Your task to perform on an android device: turn off improve location accuracy Image 0: 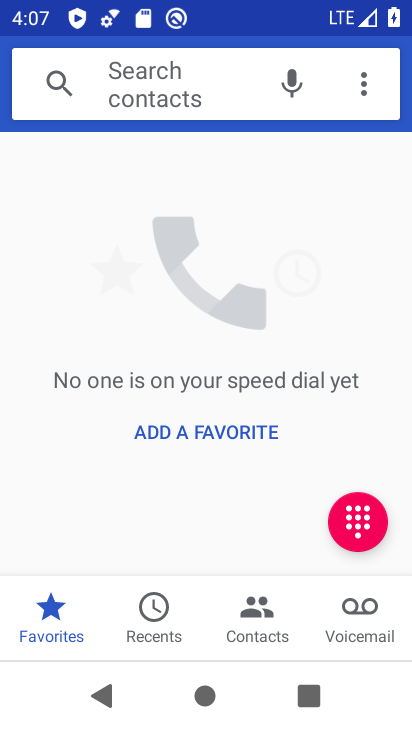
Step 0: press home button
Your task to perform on an android device: turn off improve location accuracy Image 1: 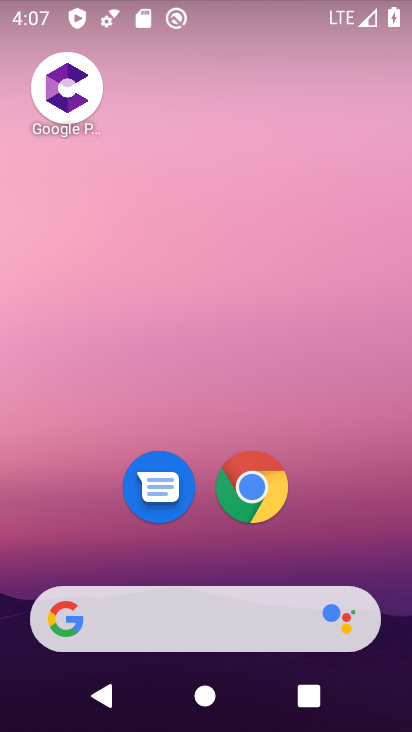
Step 1: drag from (396, 635) to (291, 173)
Your task to perform on an android device: turn off improve location accuracy Image 2: 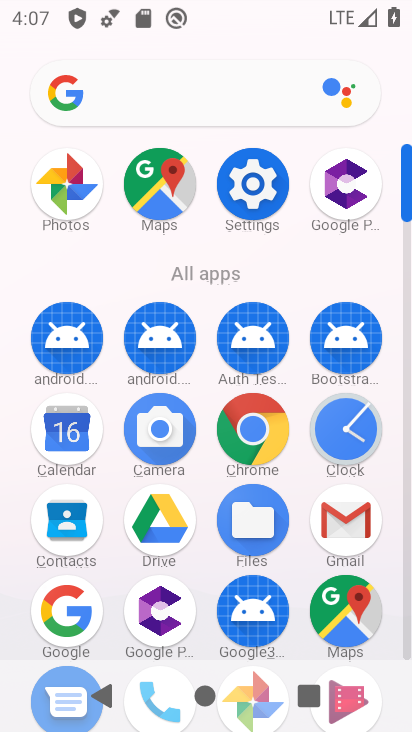
Step 2: click (408, 645)
Your task to perform on an android device: turn off improve location accuracy Image 3: 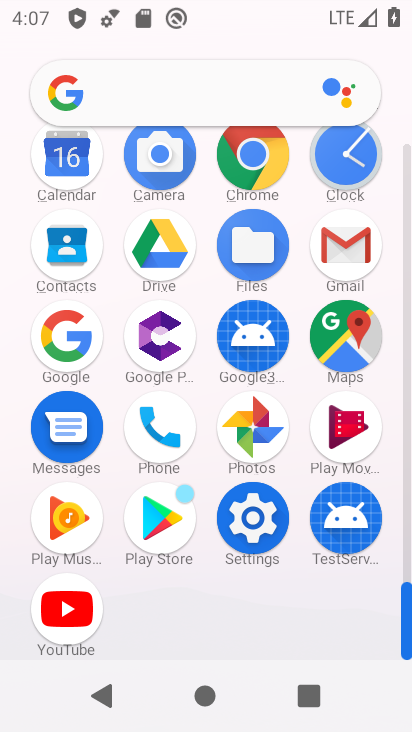
Step 3: click (253, 518)
Your task to perform on an android device: turn off improve location accuracy Image 4: 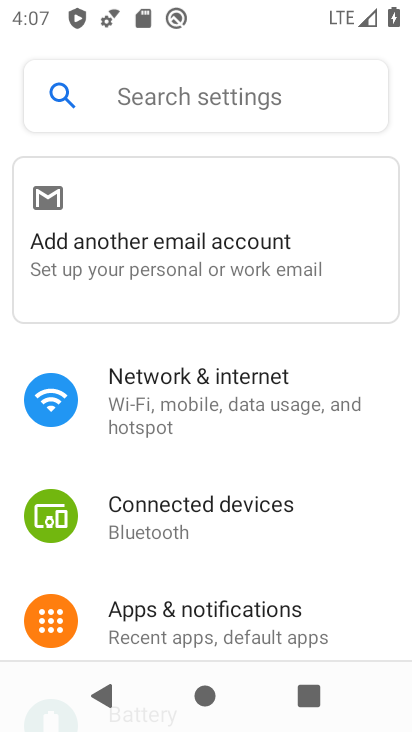
Step 4: click (303, 135)
Your task to perform on an android device: turn off improve location accuracy Image 5: 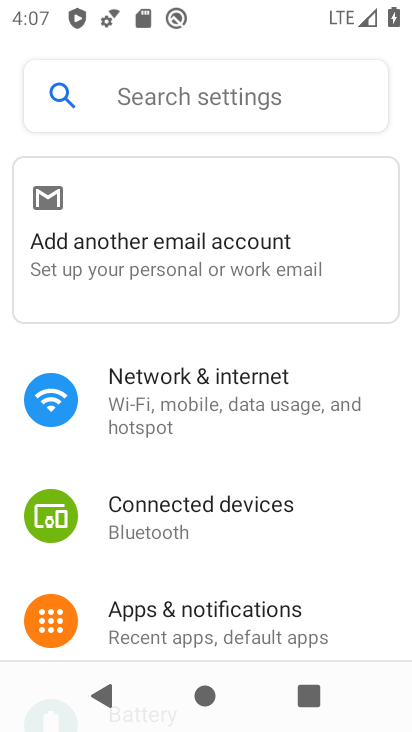
Step 5: drag from (332, 634) to (320, 190)
Your task to perform on an android device: turn off improve location accuracy Image 6: 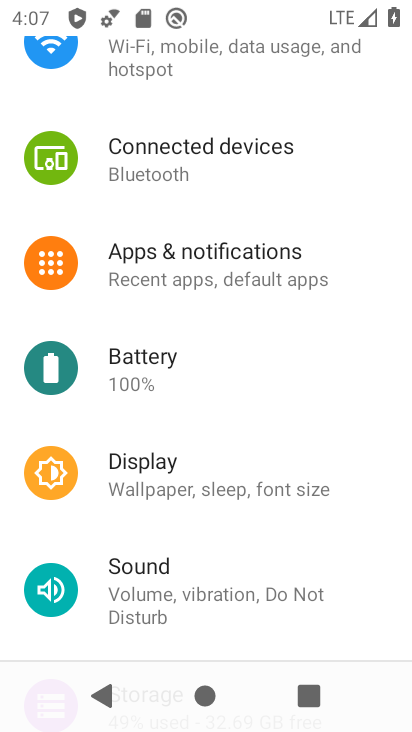
Step 6: drag from (347, 613) to (284, 151)
Your task to perform on an android device: turn off improve location accuracy Image 7: 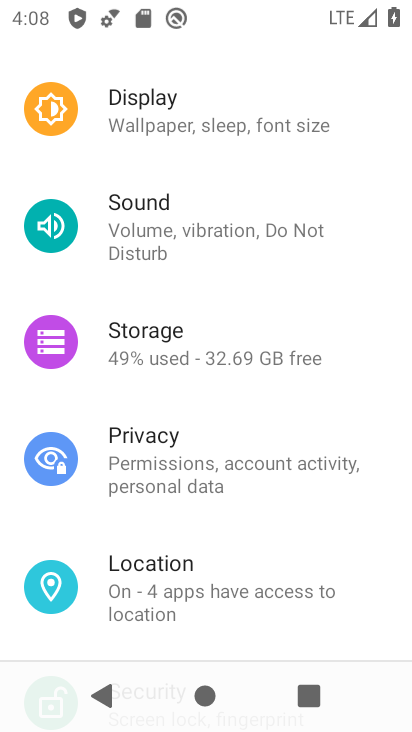
Step 7: click (162, 585)
Your task to perform on an android device: turn off improve location accuracy Image 8: 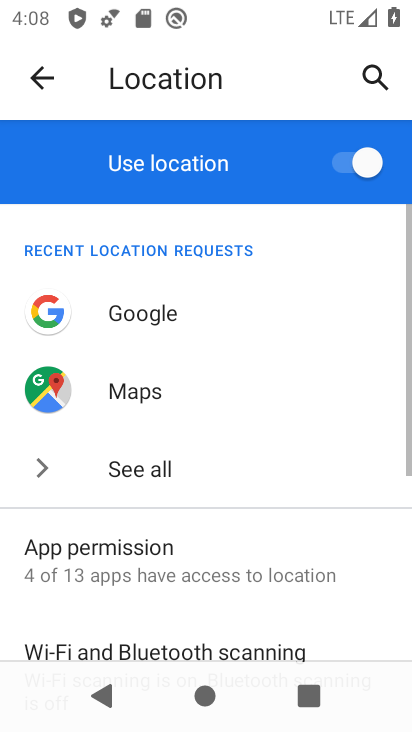
Step 8: drag from (250, 623) to (207, 206)
Your task to perform on an android device: turn off improve location accuracy Image 9: 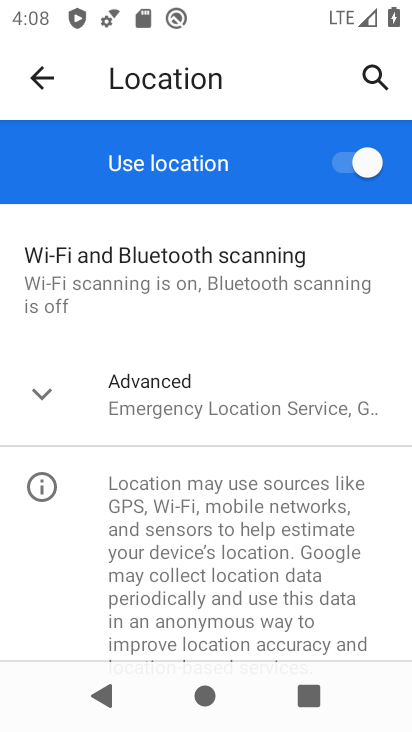
Step 9: click (41, 391)
Your task to perform on an android device: turn off improve location accuracy Image 10: 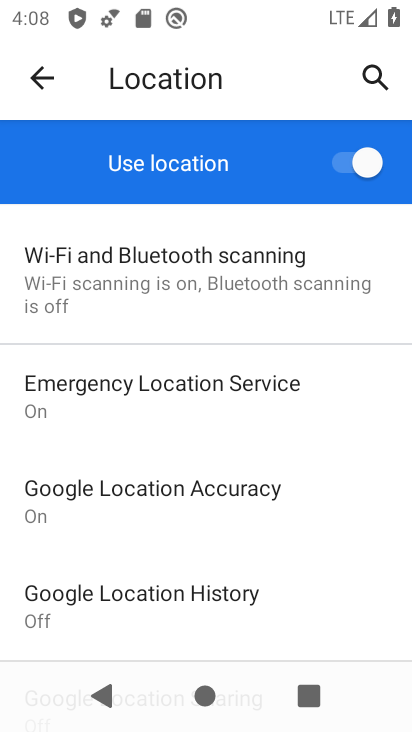
Step 10: click (113, 487)
Your task to perform on an android device: turn off improve location accuracy Image 11: 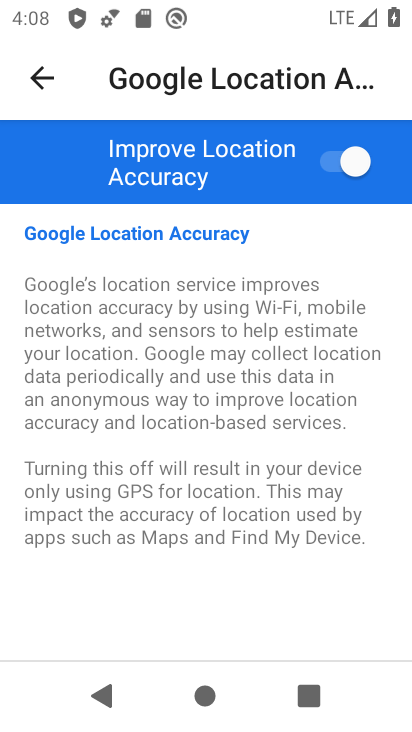
Step 11: click (330, 165)
Your task to perform on an android device: turn off improve location accuracy Image 12: 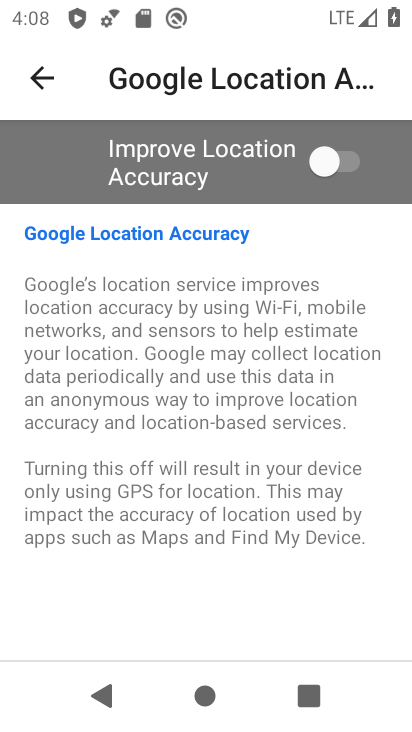
Step 12: task complete